Your task to perform on an android device: change the clock display to analog Image 0: 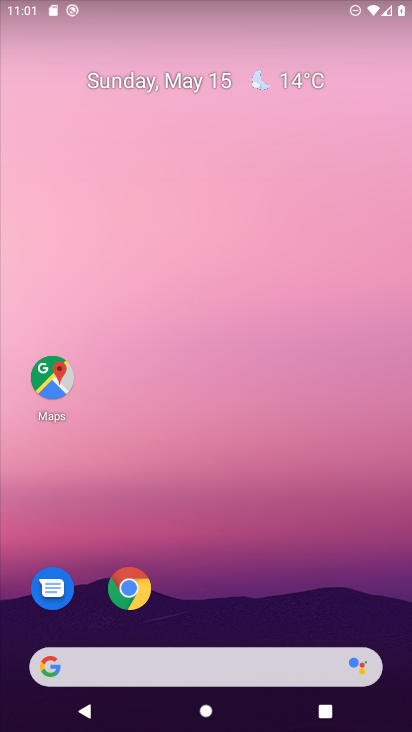
Step 0: drag from (224, 602) to (267, 0)
Your task to perform on an android device: change the clock display to analog Image 1: 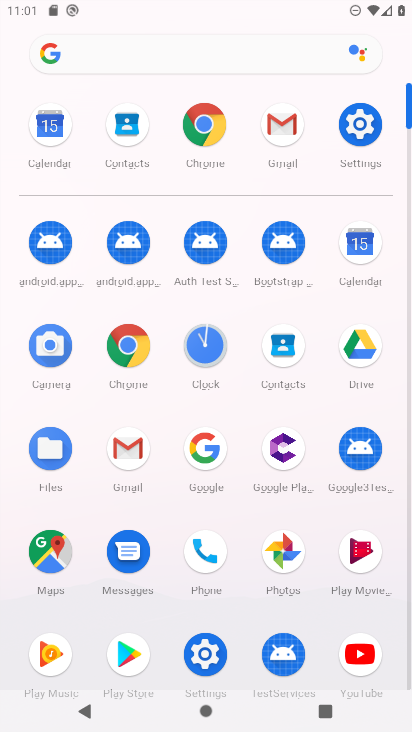
Step 1: click (207, 338)
Your task to perform on an android device: change the clock display to analog Image 2: 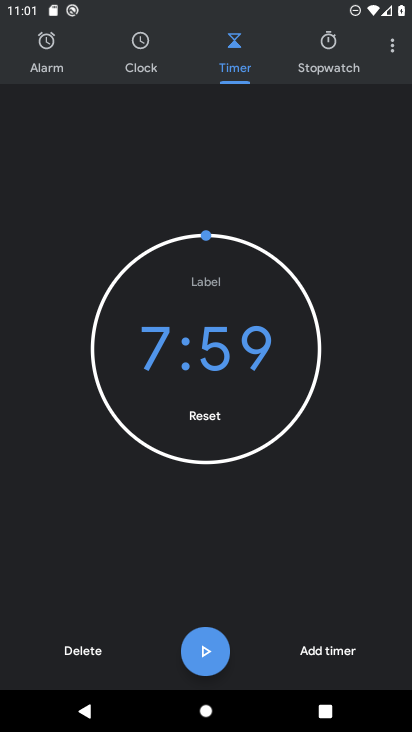
Step 2: click (387, 52)
Your task to perform on an android device: change the clock display to analog Image 3: 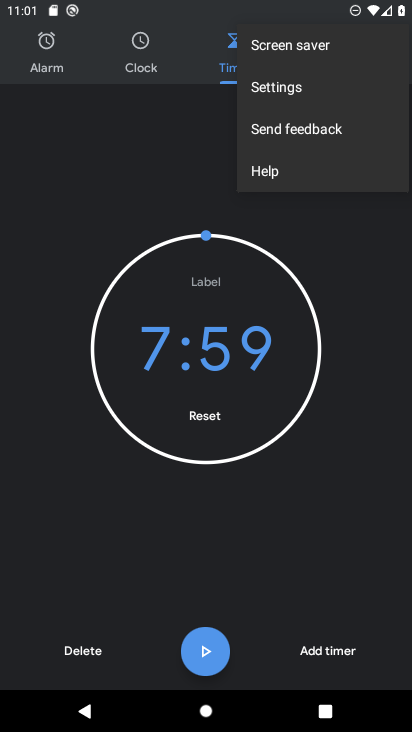
Step 3: click (283, 87)
Your task to perform on an android device: change the clock display to analog Image 4: 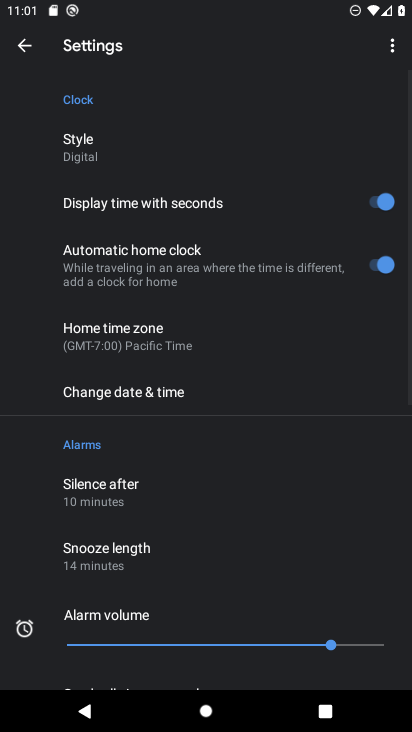
Step 4: click (110, 149)
Your task to perform on an android device: change the clock display to analog Image 5: 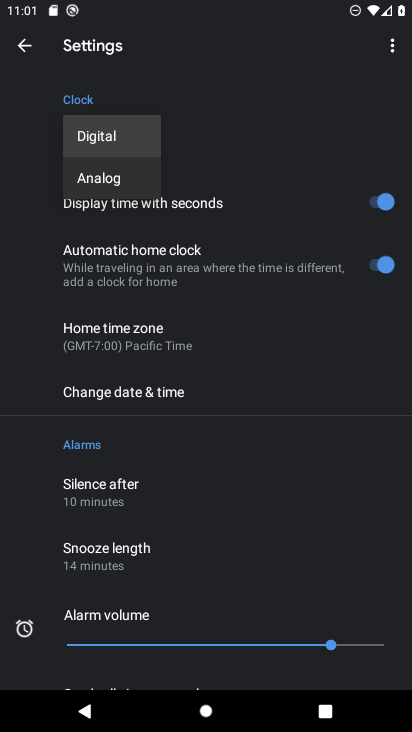
Step 5: click (92, 181)
Your task to perform on an android device: change the clock display to analog Image 6: 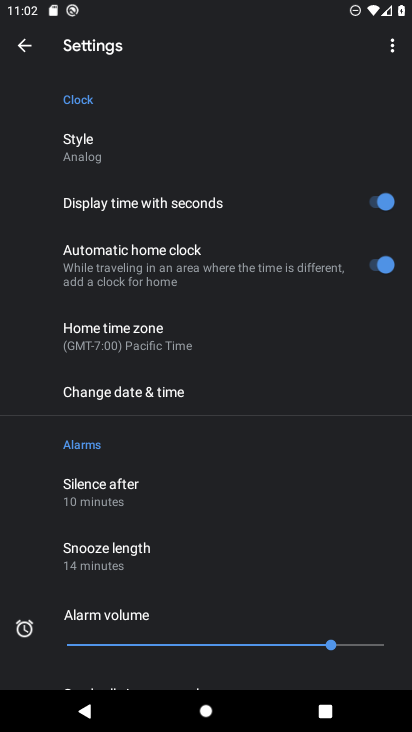
Step 6: task complete